Your task to perform on an android device: add a contact Image 0: 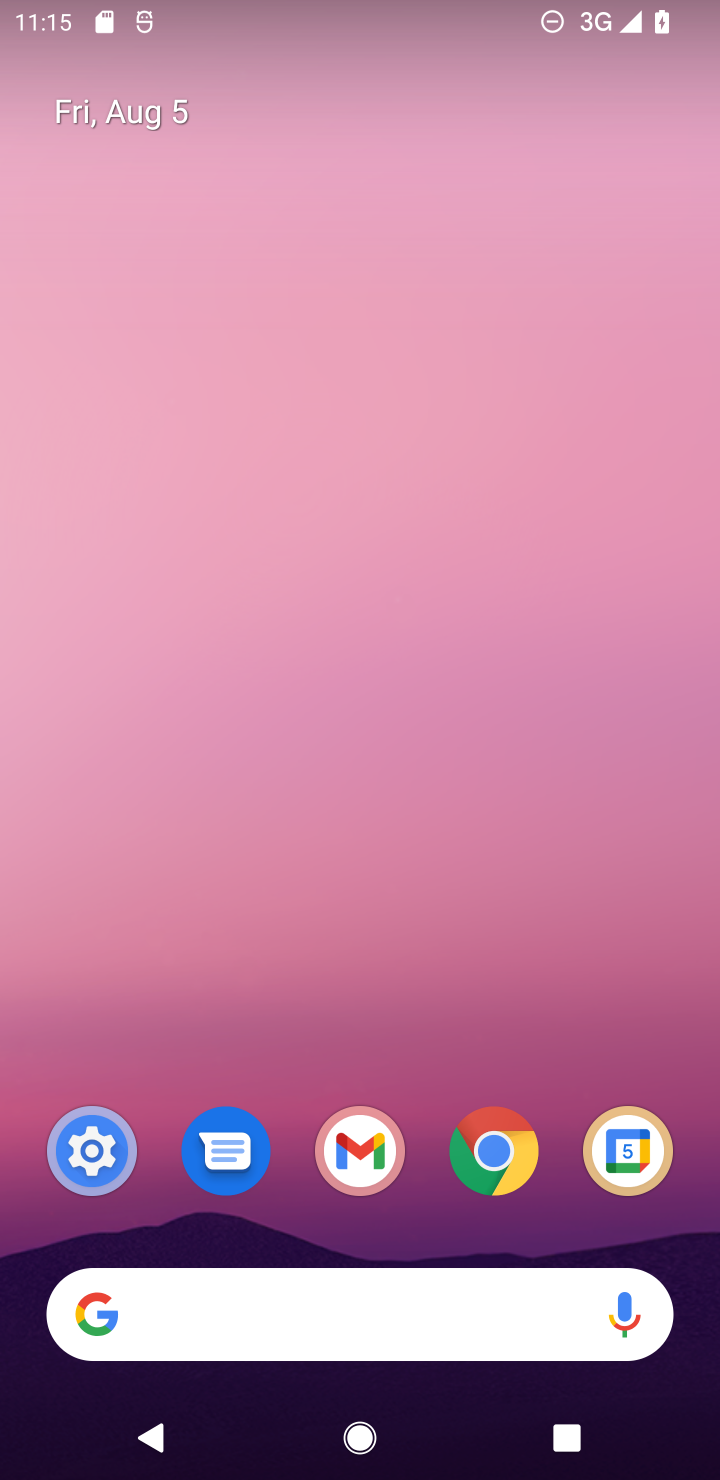
Step 0: drag from (261, 1208) to (267, 552)
Your task to perform on an android device: add a contact Image 1: 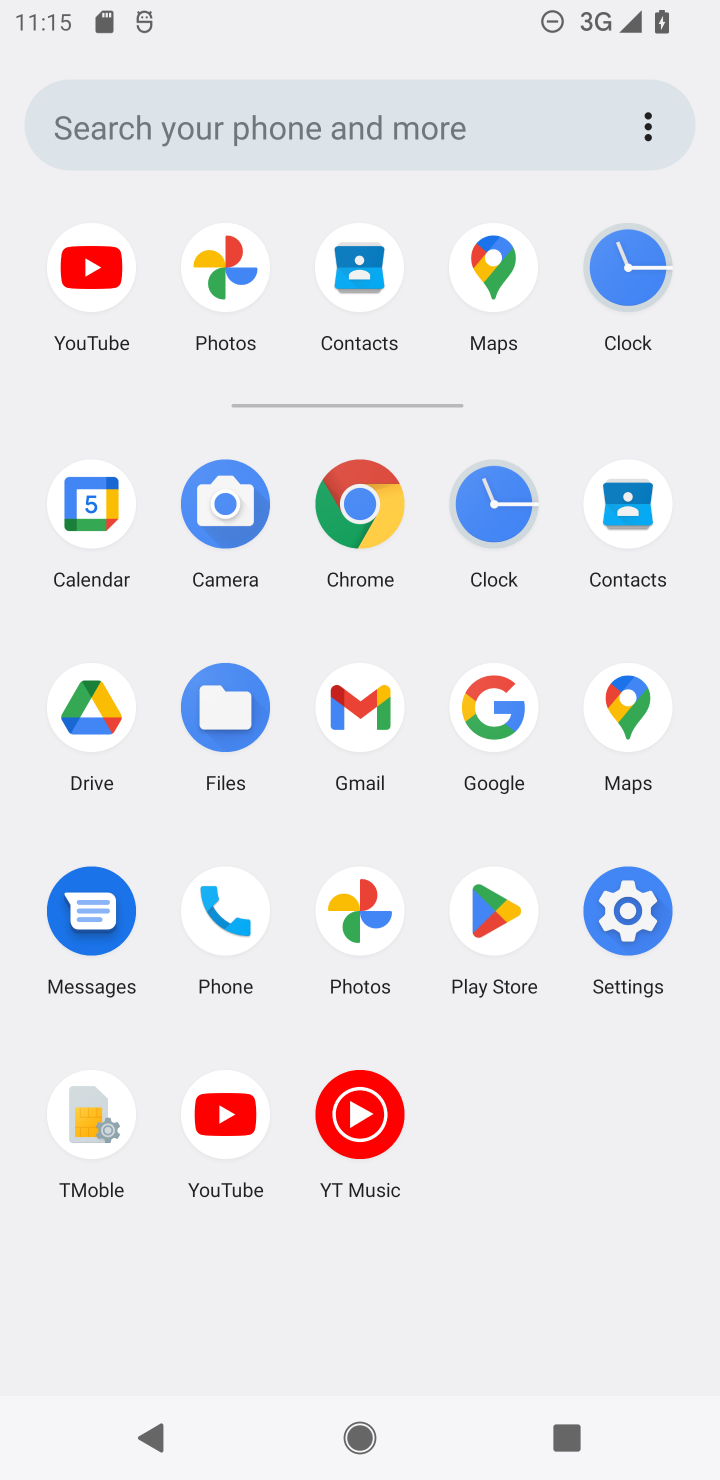
Step 1: click (610, 528)
Your task to perform on an android device: add a contact Image 2: 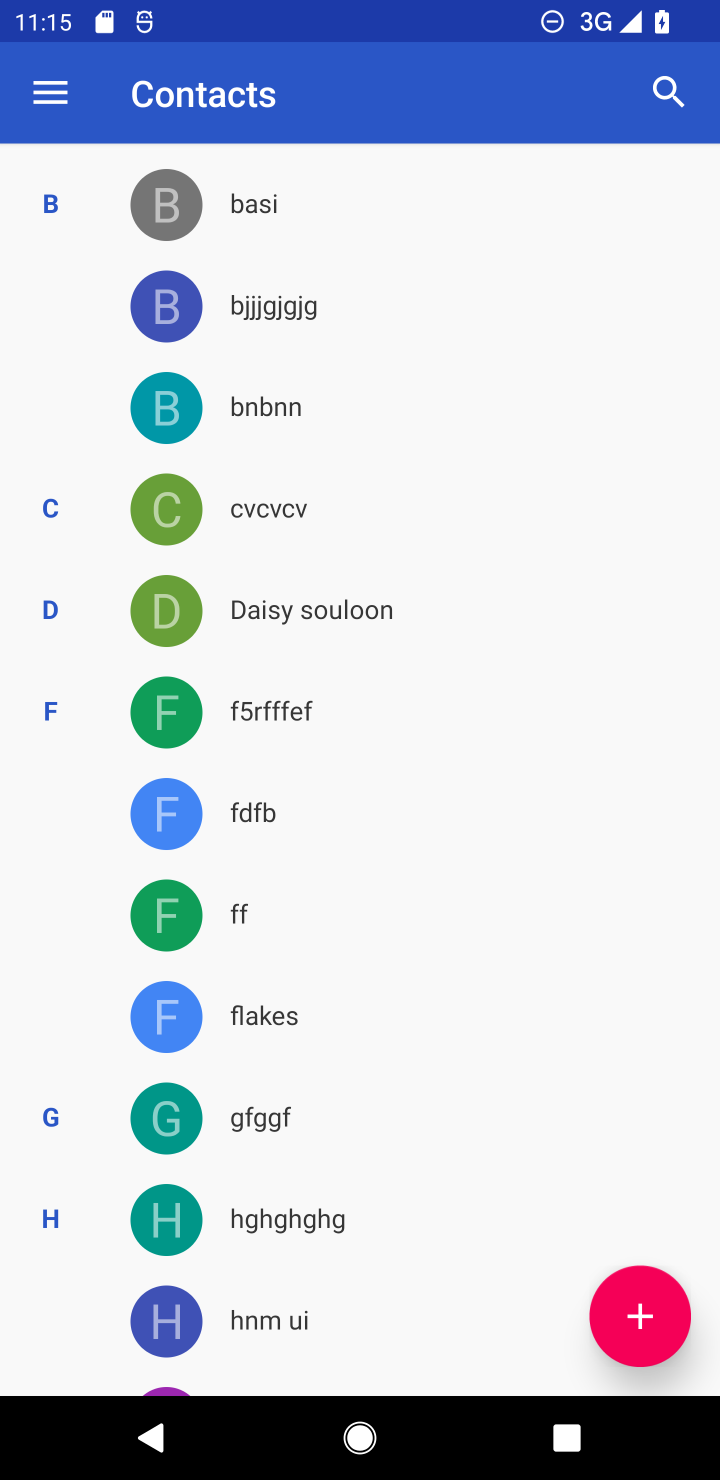
Step 2: click (632, 1312)
Your task to perform on an android device: add a contact Image 3: 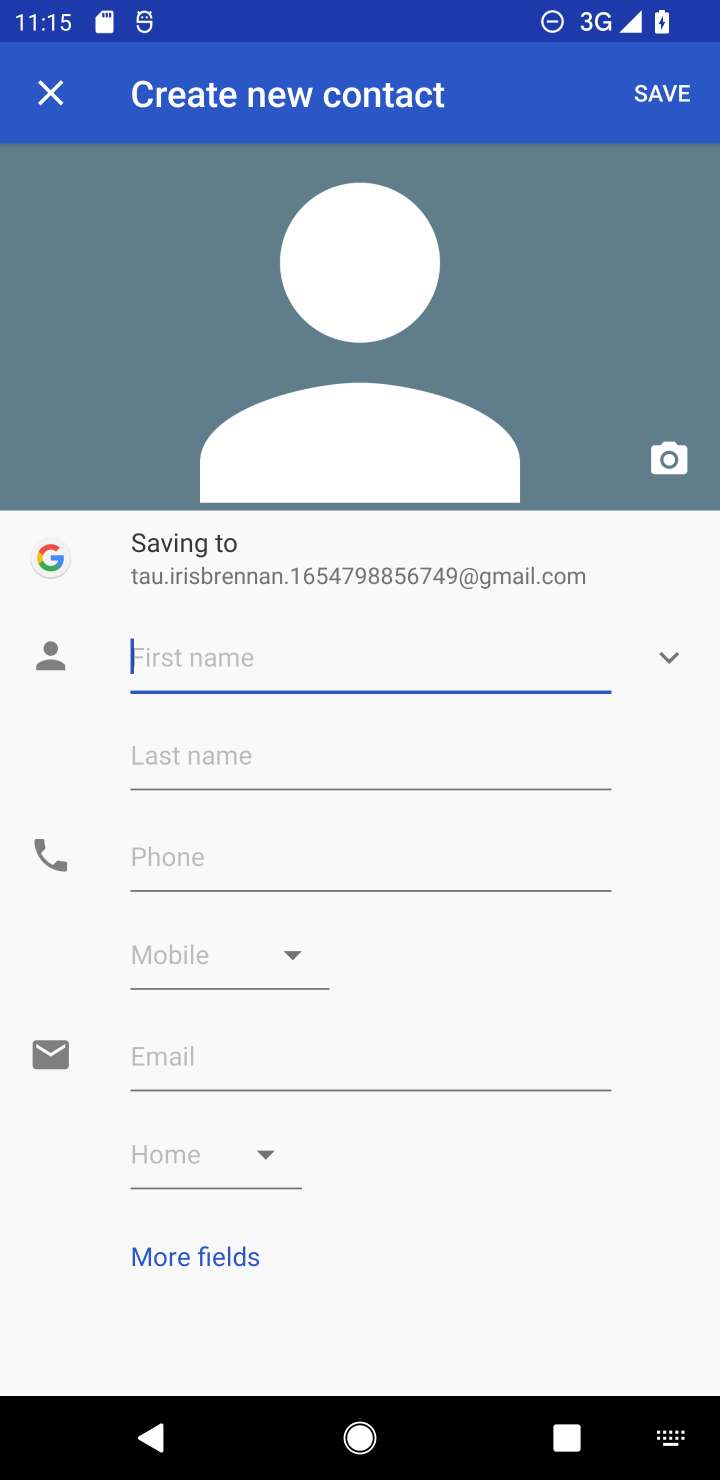
Step 3: type "Ritu"
Your task to perform on an android device: add a contact Image 4: 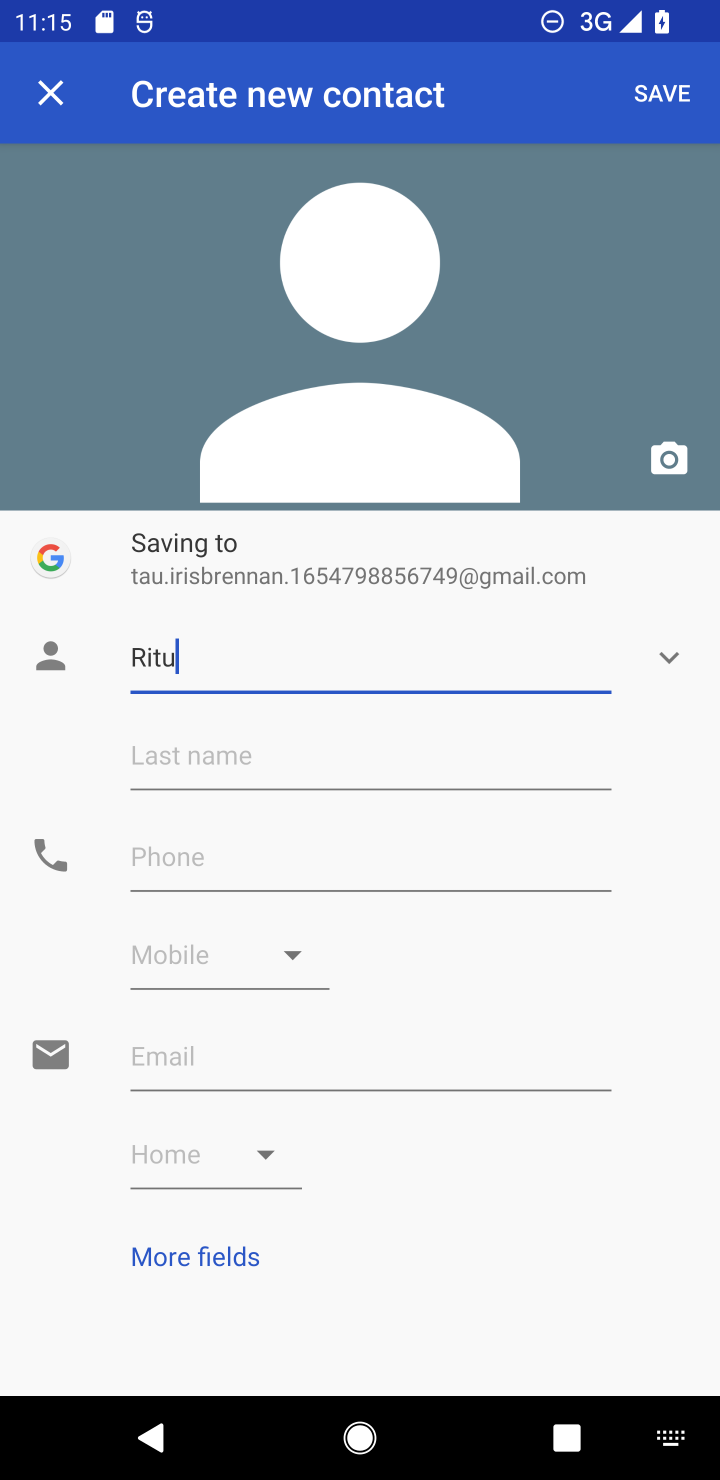
Step 4: click (316, 740)
Your task to perform on an android device: add a contact Image 5: 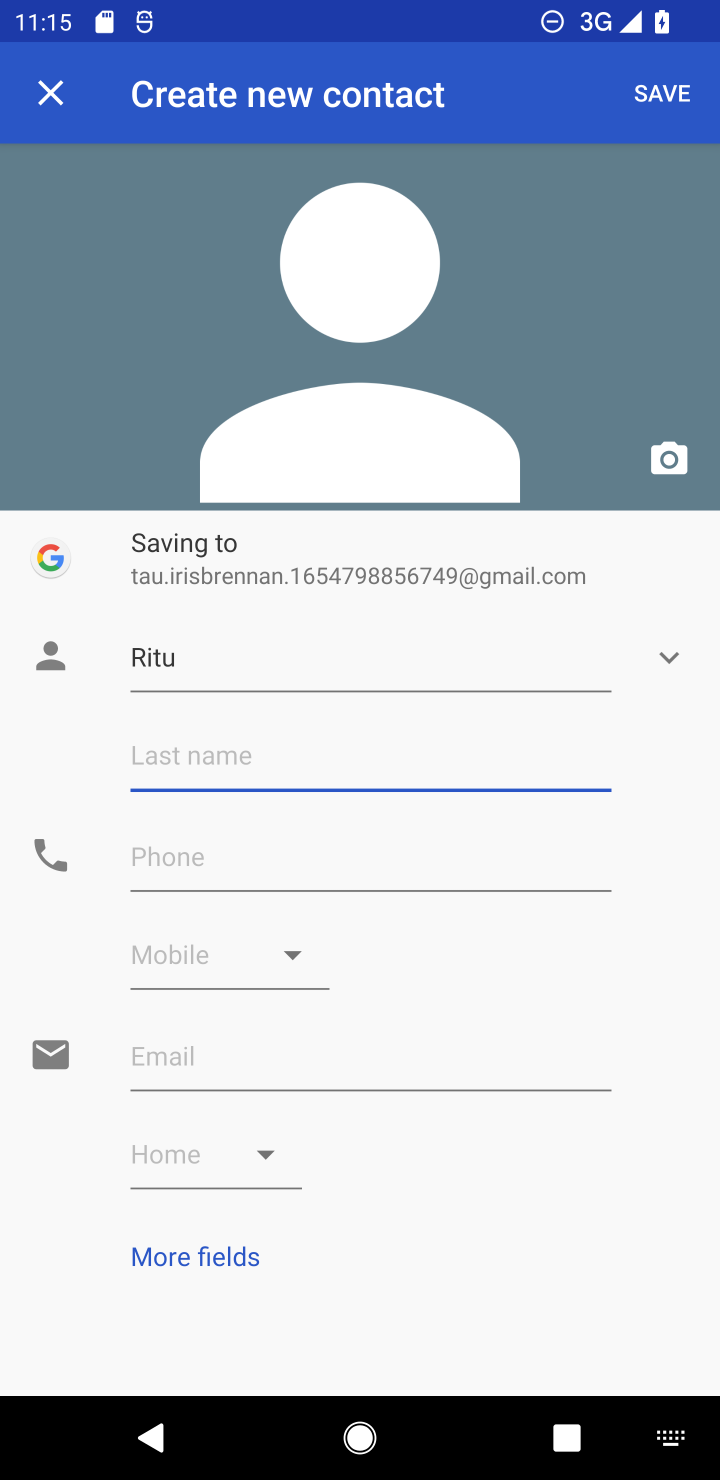
Step 5: type "sharma"
Your task to perform on an android device: add a contact Image 6: 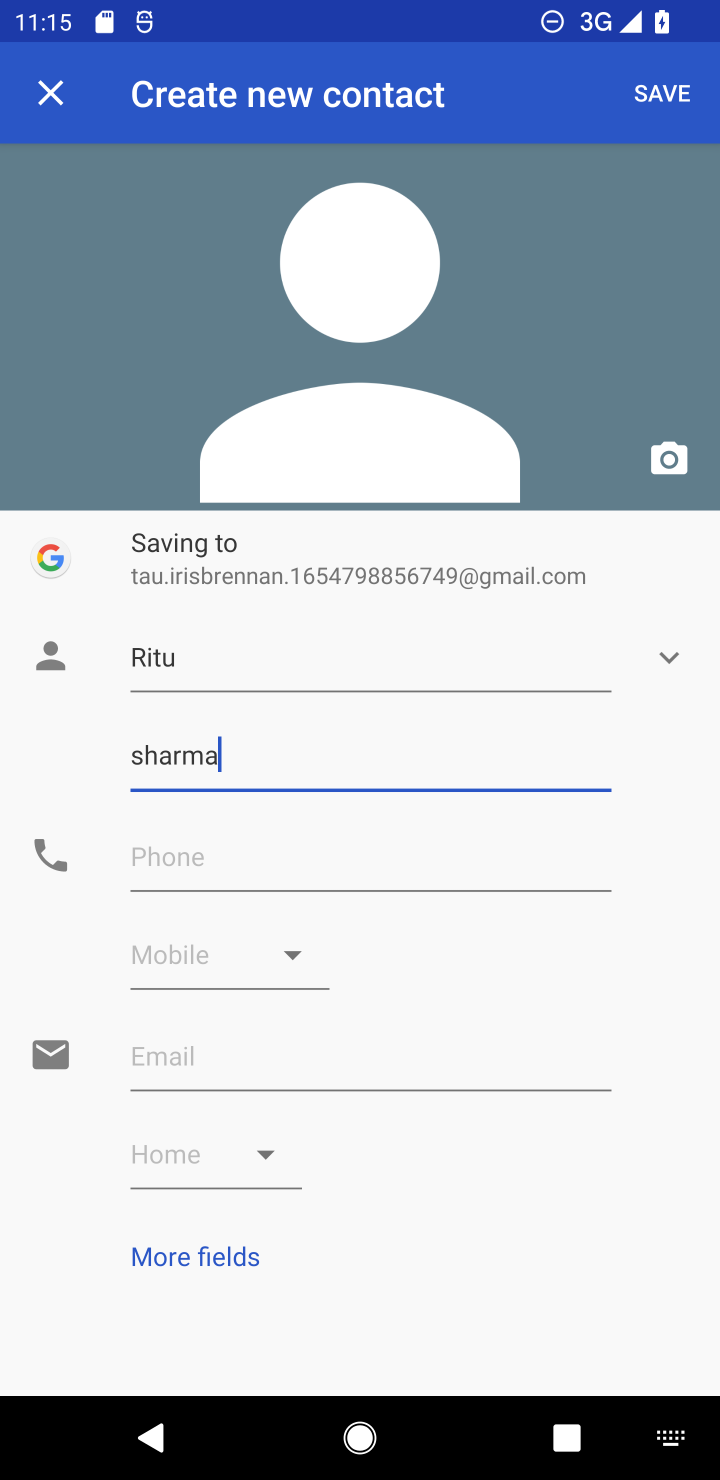
Step 6: click (286, 850)
Your task to perform on an android device: add a contact Image 7: 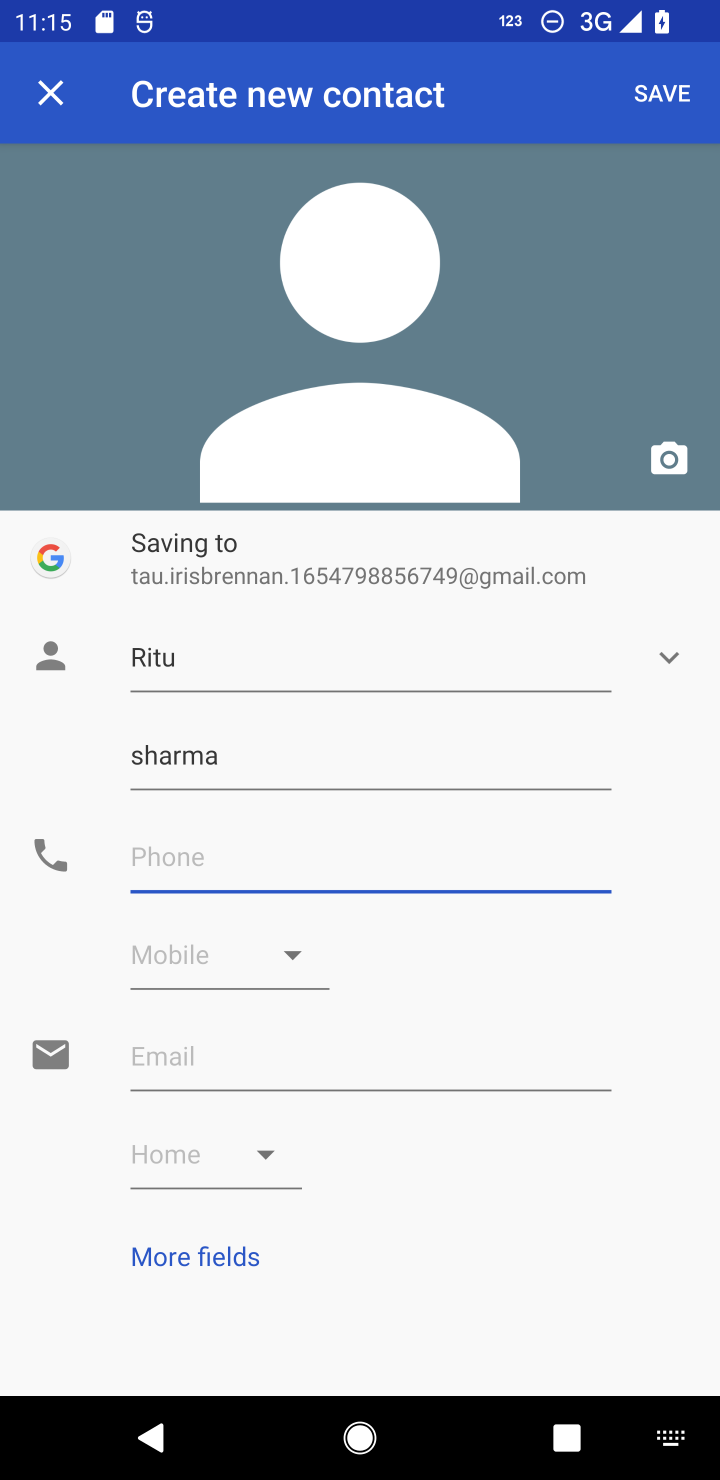
Step 7: type "89098787890"
Your task to perform on an android device: add a contact Image 8: 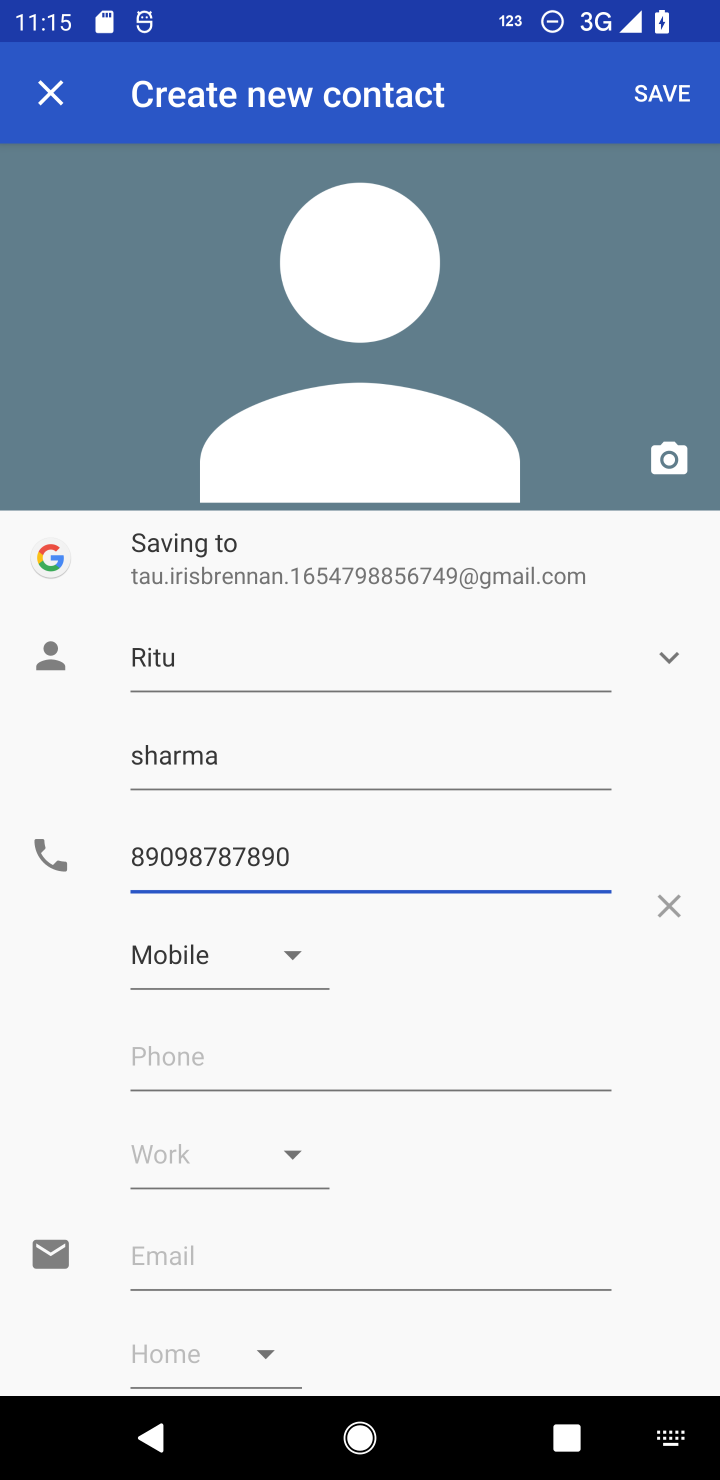
Step 8: click (656, 90)
Your task to perform on an android device: add a contact Image 9: 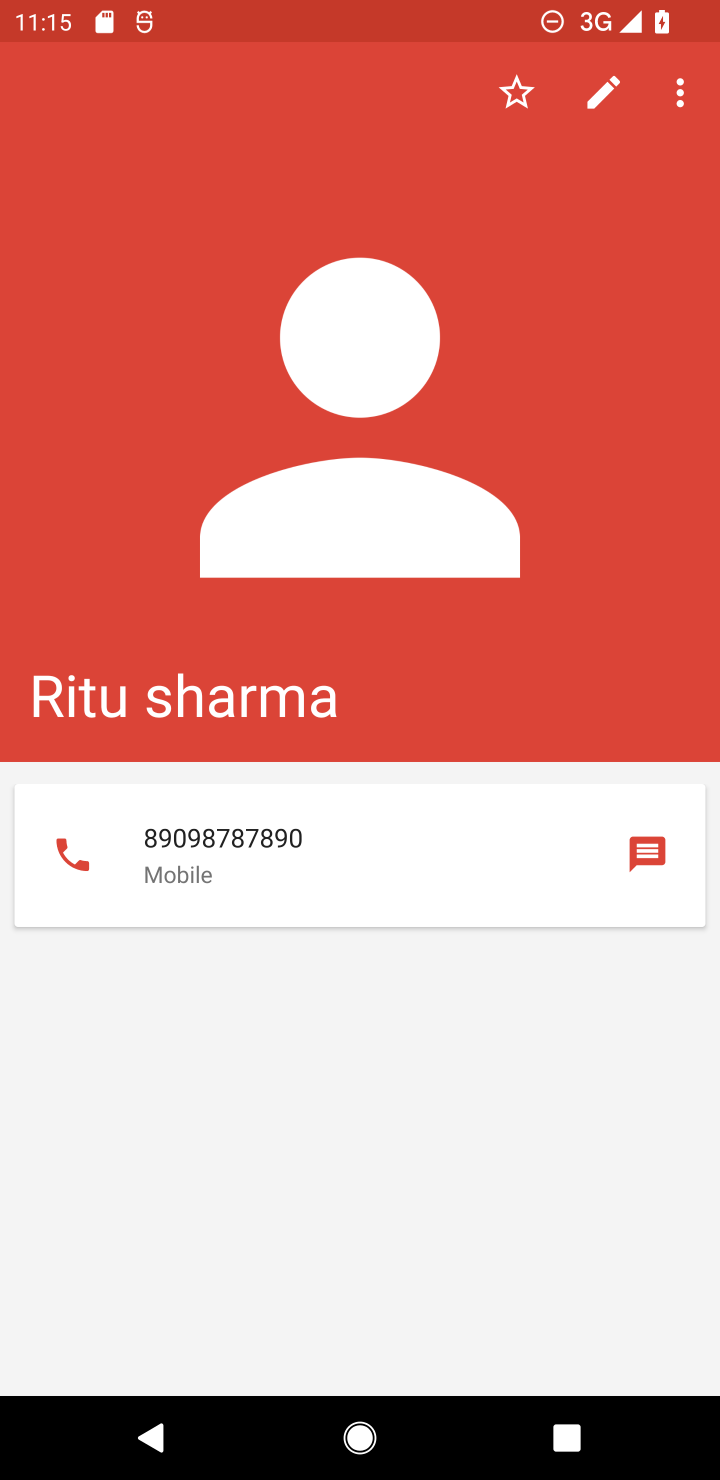
Step 9: task complete